Your task to perform on an android device: Open Chrome and go to the settings page Image 0: 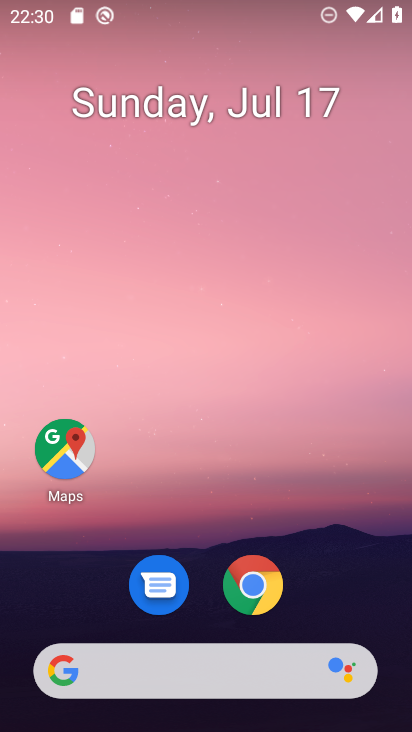
Step 0: click (255, 595)
Your task to perform on an android device: Open Chrome and go to the settings page Image 1: 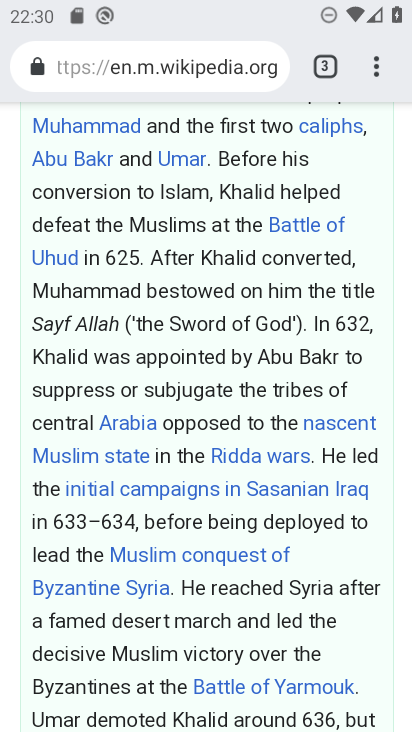
Step 1: task complete